Your task to perform on an android device: see tabs open on other devices in the chrome app Image 0: 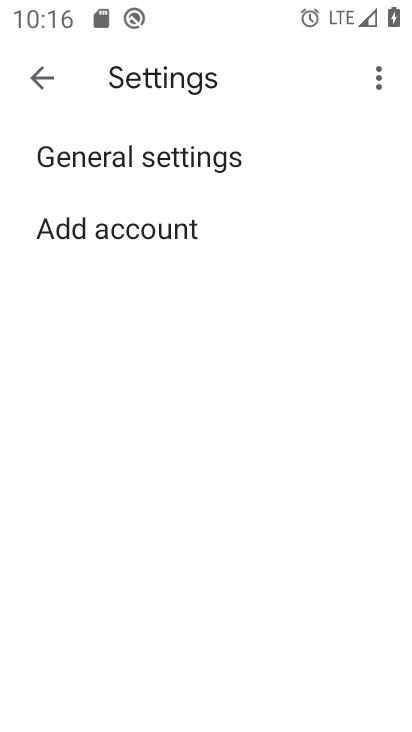
Step 0: press home button
Your task to perform on an android device: see tabs open on other devices in the chrome app Image 1: 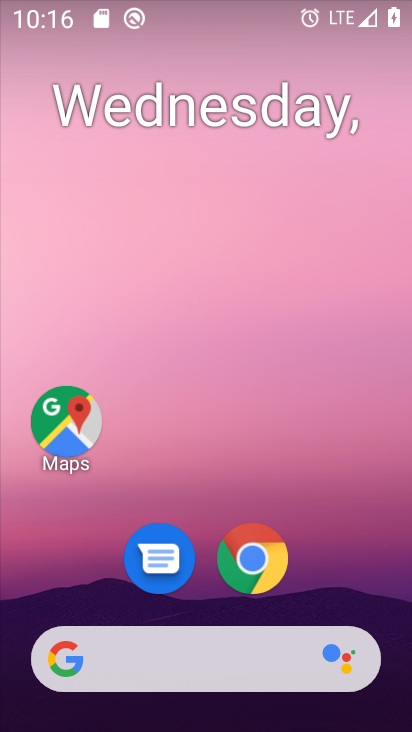
Step 1: drag from (323, 556) to (350, 118)
Your task to perform on an android device: see tabs open on other devices in the chrome app Image 2: 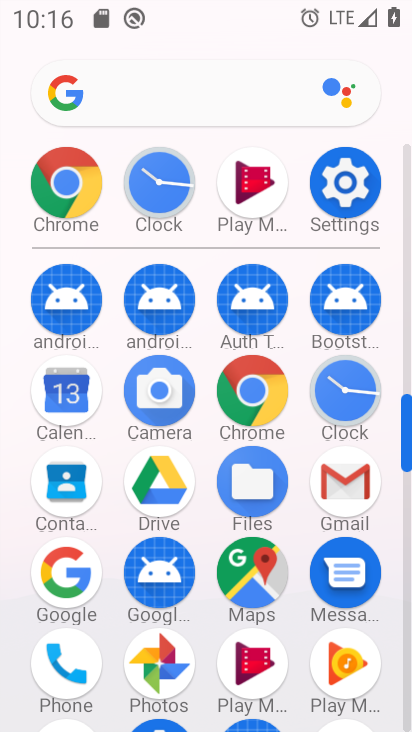
Step 2: click (270, 391)
Your task to perform on an android device: see tabs open on other devices in the chrome app Image 3: 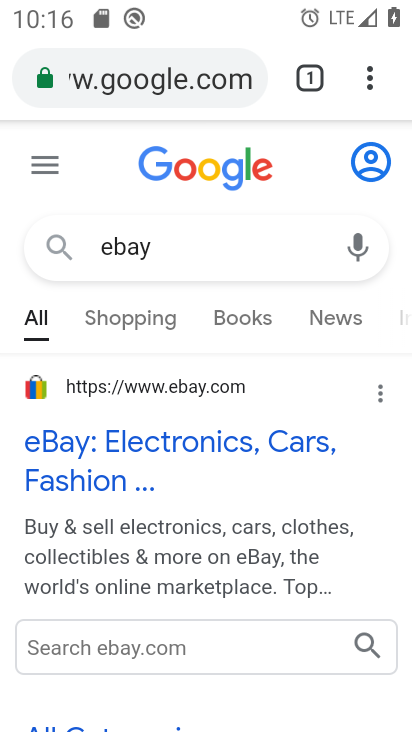
Step 3: click (367, 86)
Your task to perform on an android device: see tabs open on other devices in the chrome app Image 4: 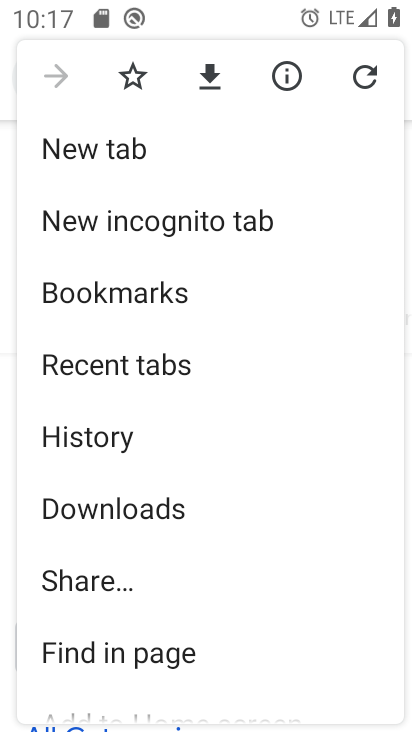
Step 4: drag from (331, 385) to (331, 317)
Your task to perform on an android device: see tabs open on other devices in the chrome app Image 5: 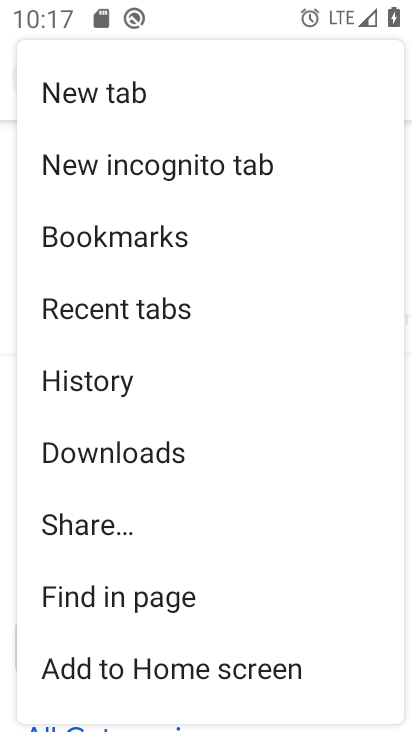
Step 5: click (194, 313)
Your task to perform on an android device: see tabs open on other devices in the chrome app Image 6: 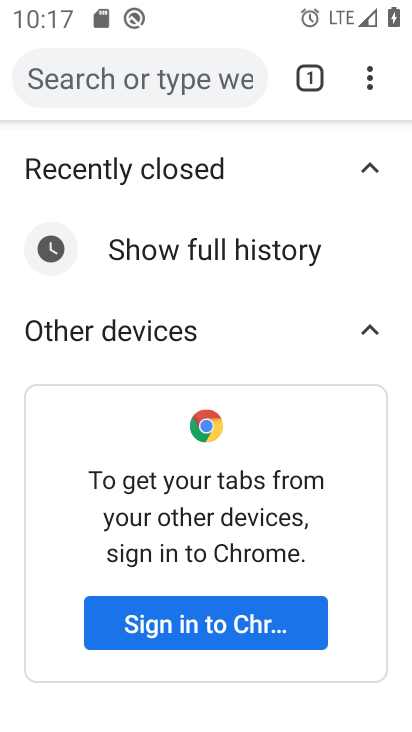
Step 6: click (311, 82)
Your task to perform on an android device: see tabs open on other devices in the chrome app Image 7: 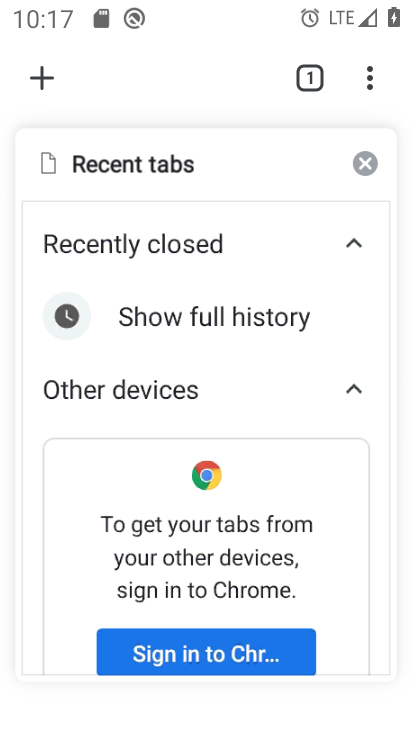
Step 7: task complete